Your task to perform on an android device: toggle translation in the chrome app Image 0: 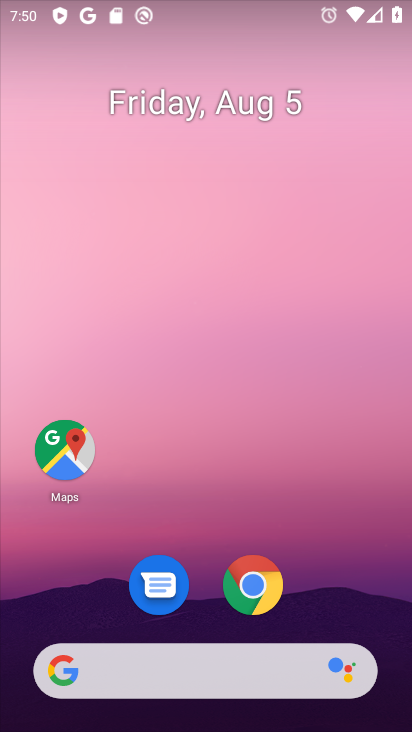
Step 0: click (253, 579)
Your task to perform on an android device: toggle translation in the chrome app Image 1: 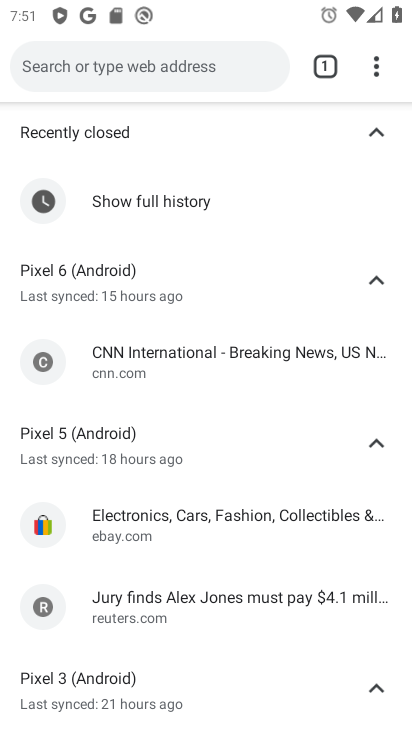
Step 1: click (376, 71)
Your task to perform on an android device: toggle translation in the chrome app Image 2: 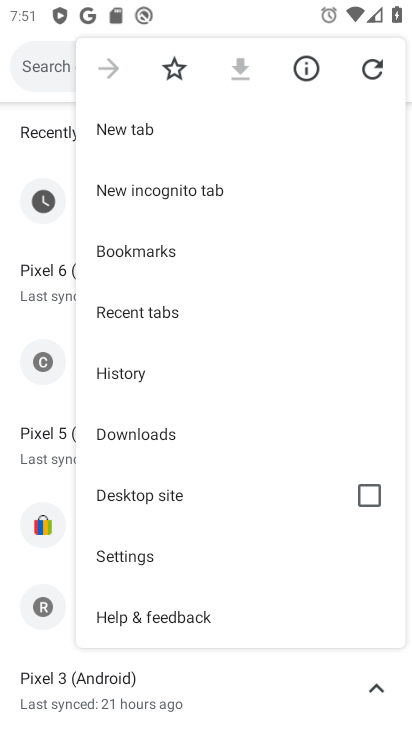
Step 2: click (167, 562)
Your task to perform on an android device: toggle translation in the chrome app Image 3: 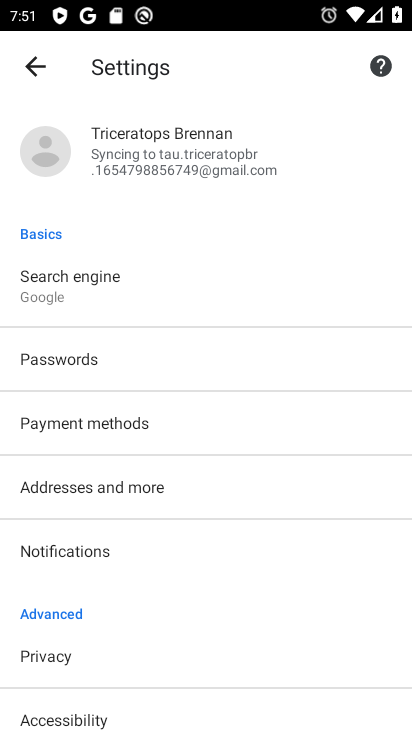
Step 3: drag from (169, 549) to (246, 161)
Your task to perform on an android device: toggle translation in the chrome app Image 4: 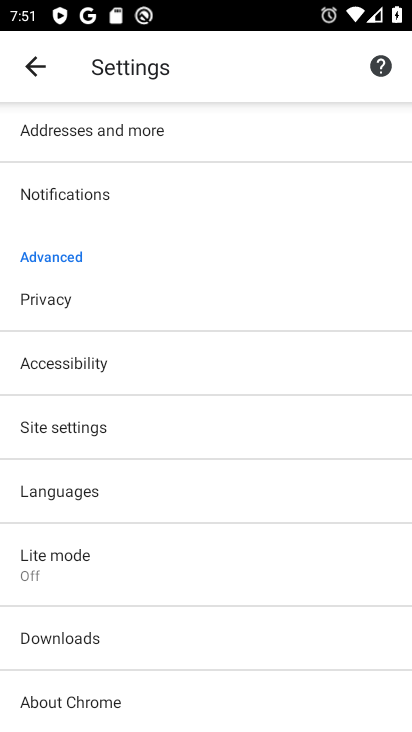
Step 4: click (196, 491)
Your task to perform on an android device: toggle translation in the chrome app Image 5: 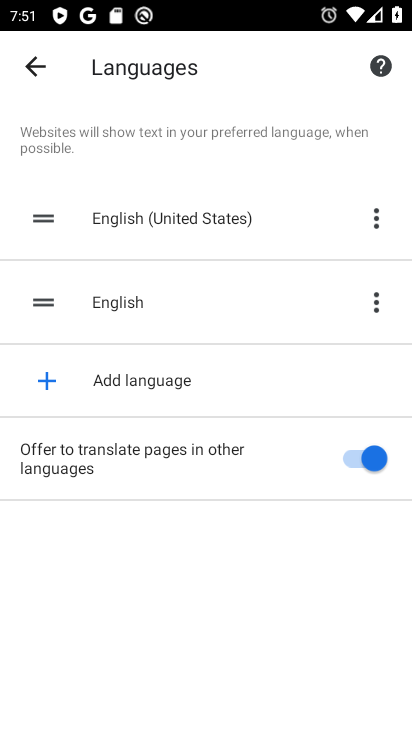
Step 5: click (358, 454)
Your task to perform on an android device: toggle translation in the chrome app Image 6: 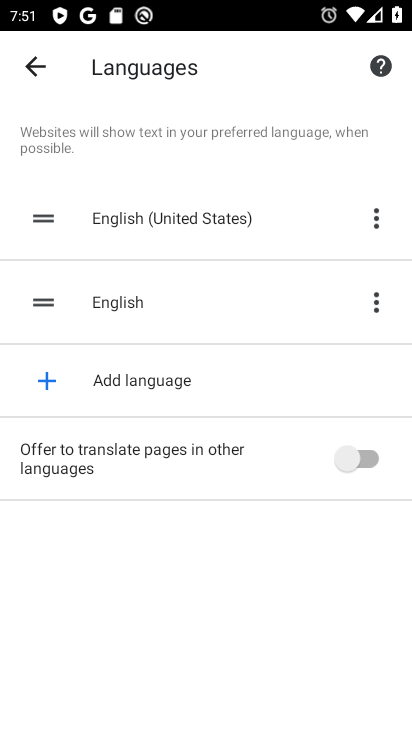
Step 6: task complete